Your task to perform on an android device: toggle priority inbox in the gmail app Image 0: 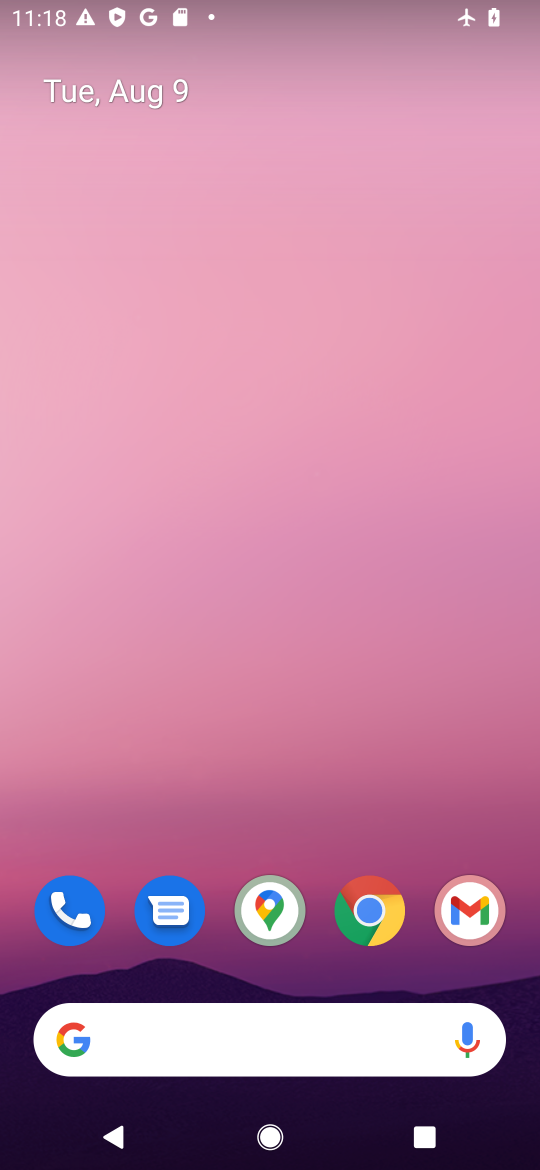
Step 0: click (452, 833)
Your task to perform on an android device: toggle priority inbox in the gmail app Image 1: 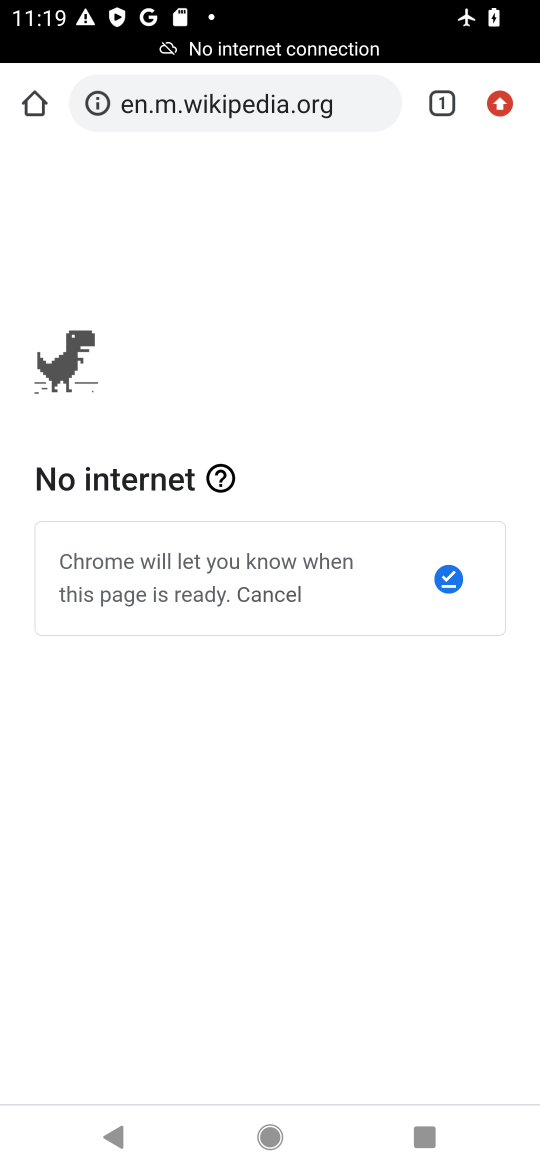
Step 1: task complete